Your task to perform on an android device: remove spam from my inbox in the gmail app Image 0: 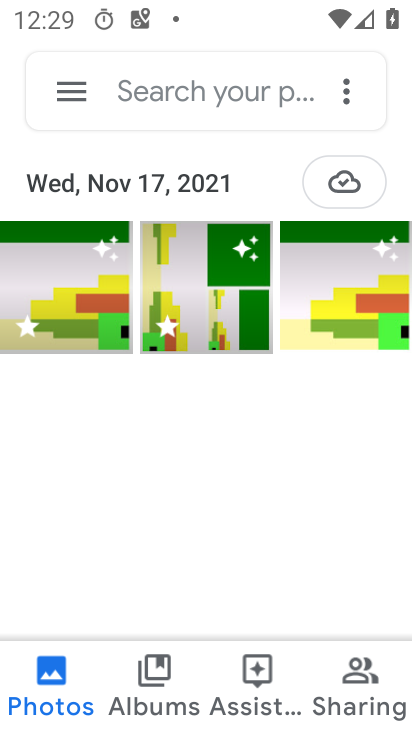
Step 0: press home button
Your task to perform on an android device: remove spam from my inbox in the gmail app Image 1: 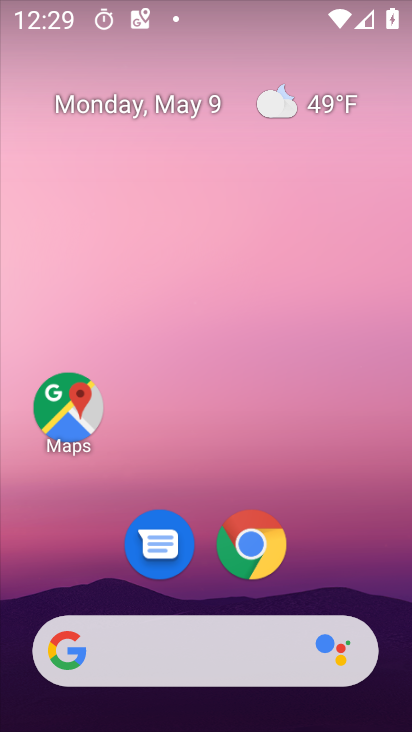
Step 1: drag from (295, 528) to (411, 356)
Your task to perform on an android device: remove spam from my inbox in the gmail app Image 2: 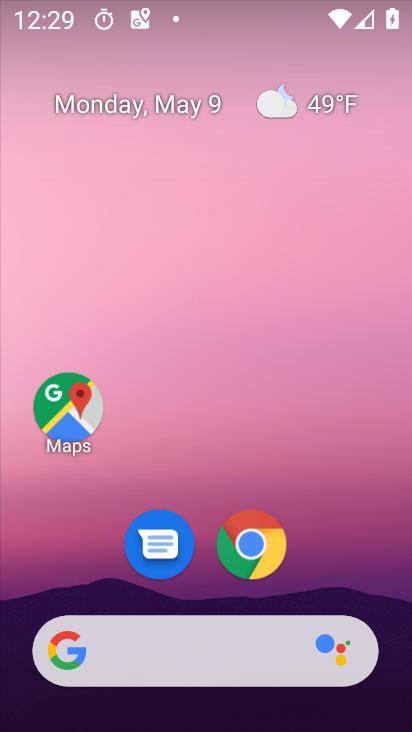
Step 2: click (341, 516)
Your task to perform on an android device: remove spam from my inbox in the gmail app Image 3: 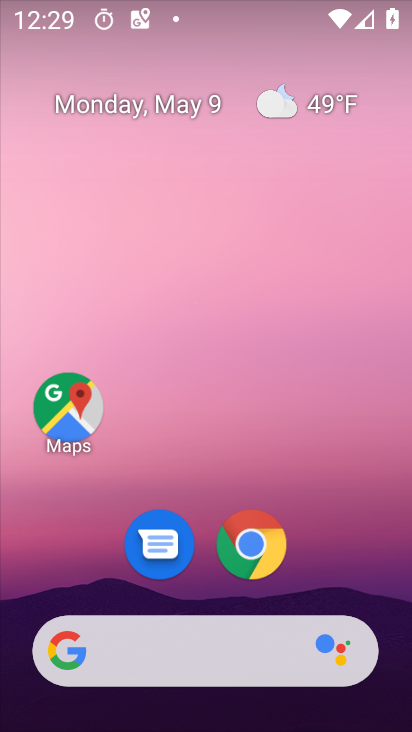
Step 3: drag from (335, 603) to (356, 1)
Your task to perform on an android device: remove spam from my inbox in the gmail app Image 4: 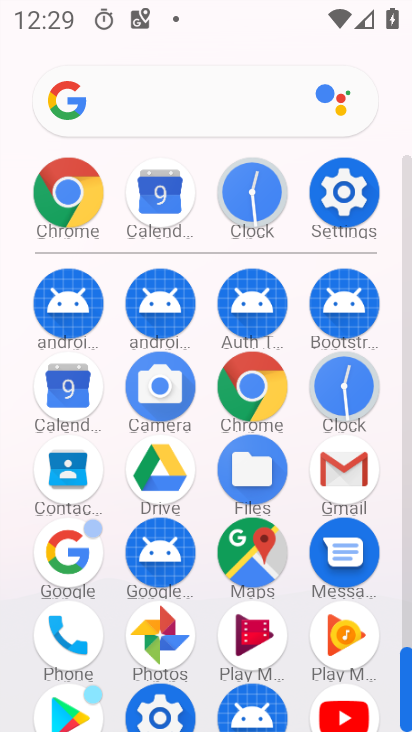
Step 4: click (348, 482)
Your task to perform on an android device: remove spam from my inbox in the gmail app Image 5: 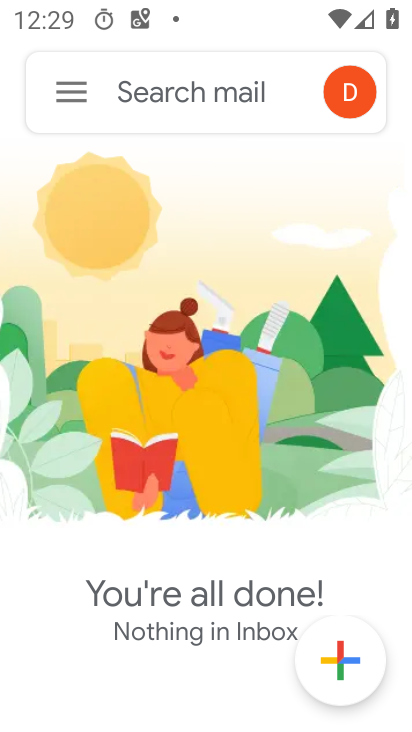
Step 5: click (60, 90)
Your task to perform on an android device: remove spam from my inbox in the gmail app Image 6: 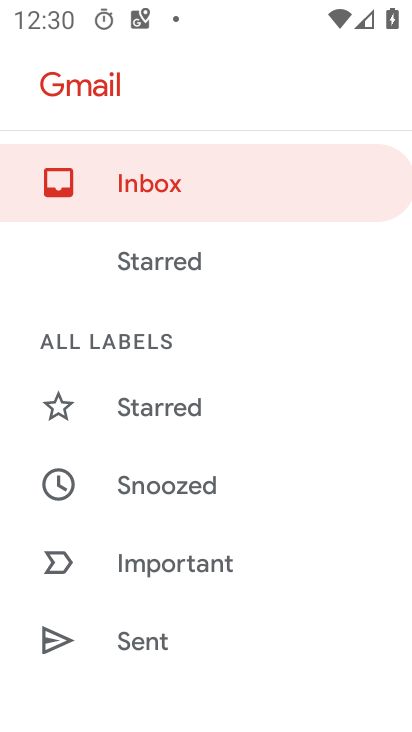
Step 6: drag from (190, 658) to (214, 283)
Your task to perform on an android device: remove spam from my inbox in the gmail app Image 7: 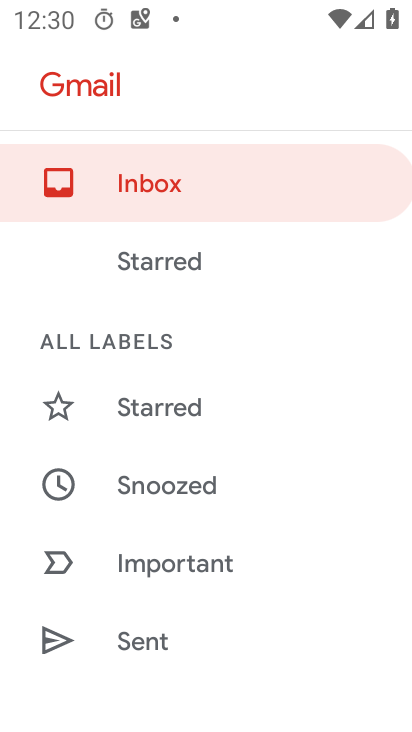
Step 7: drag from (233, 639) to (255, 174)
Your task to perform on an android device: remove spam from my inbox in the gmail app Image 8: 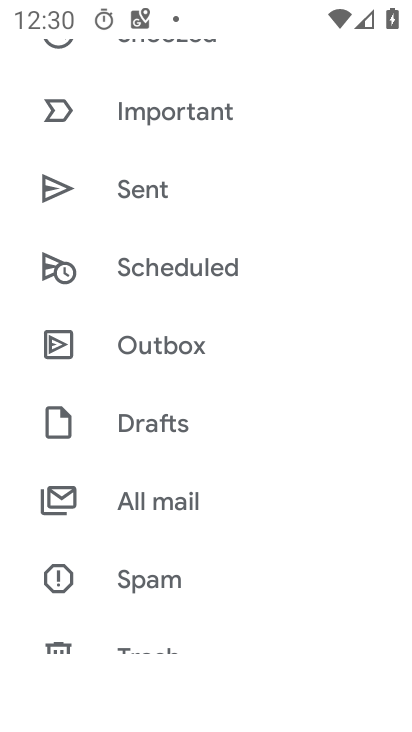
Step 8: click (196, 576)
Your task to perform on an android device: remove spam from my inbox in the gmail app Image 9: 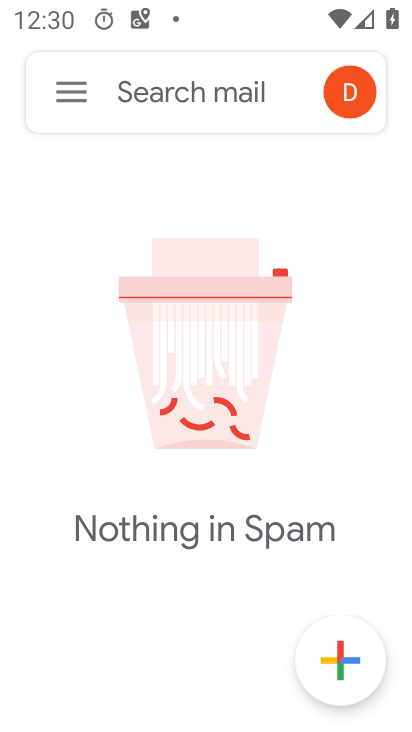
Step 9: task complete